Your task to perform on an android device: Is it going to rain today? Image 0: 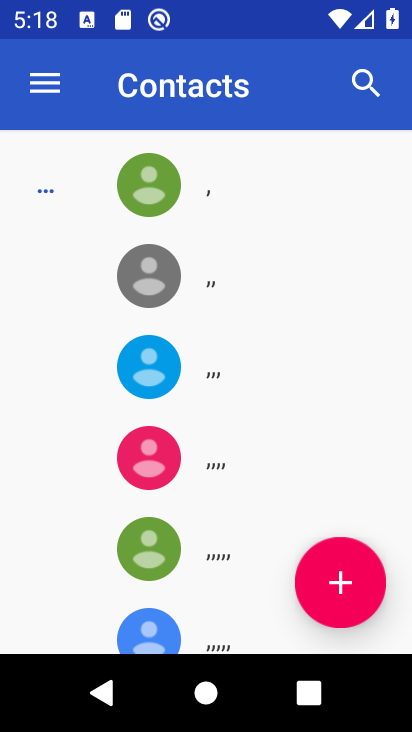
Step 0: press home button
Your task to perform on an android device: Is it going to rain today? Image 1: 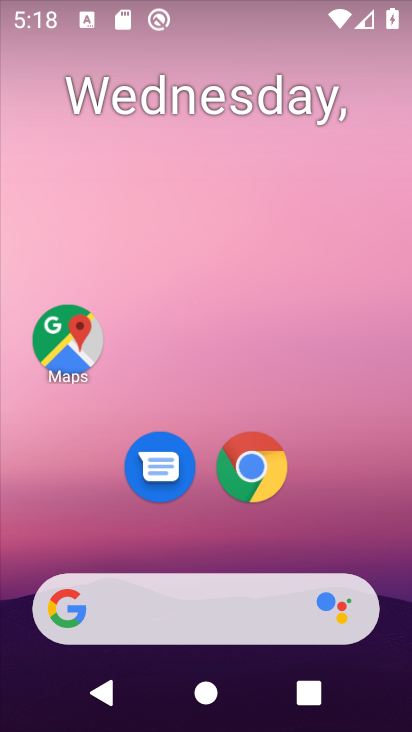
Step 1: drag from (317, 511) to (221, 63)
Your task to perform on an android device: Is it going to rain today? Image 2: 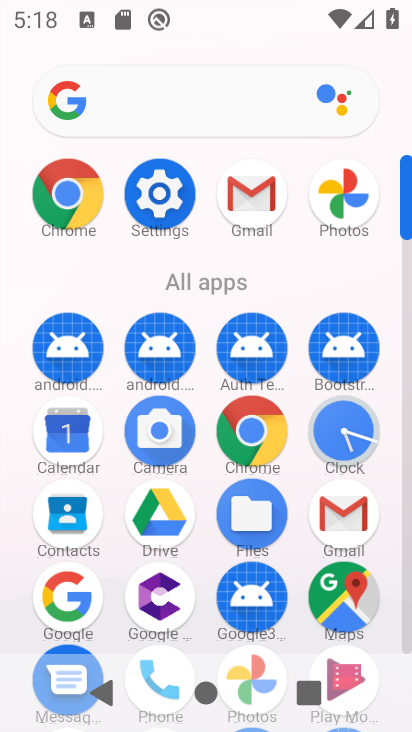
Step 2: click (72, 602)
Your task to perform on an android device: Is it going to rain today? Image 3: 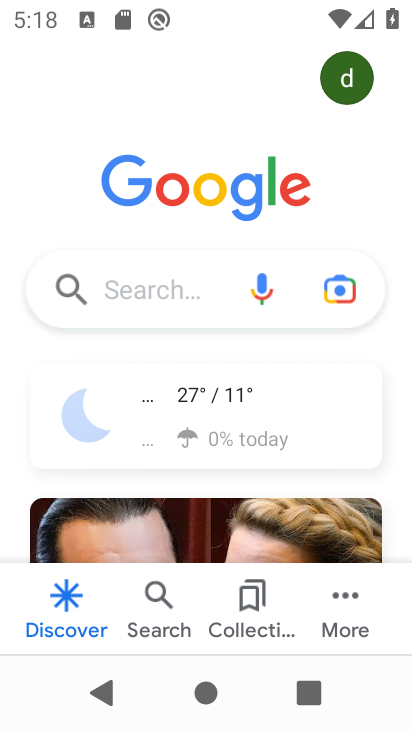
Step 3: click (237, 401)
Your task to perform on an android device: Is it going to rain today? Image 4: 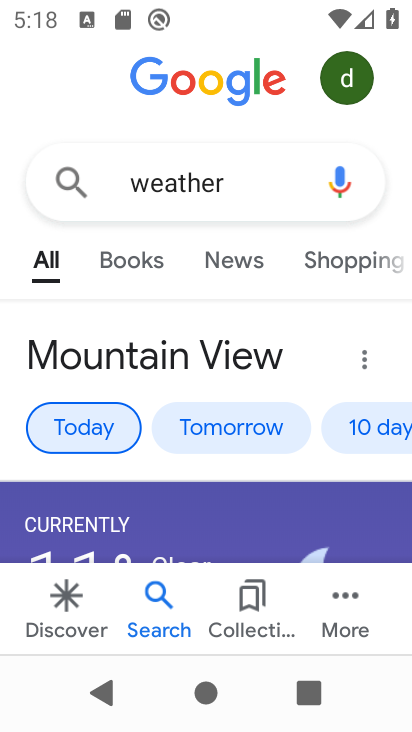
Step 4: task complete